Your task to perform on an android device: turn on airplane mode Image 0: 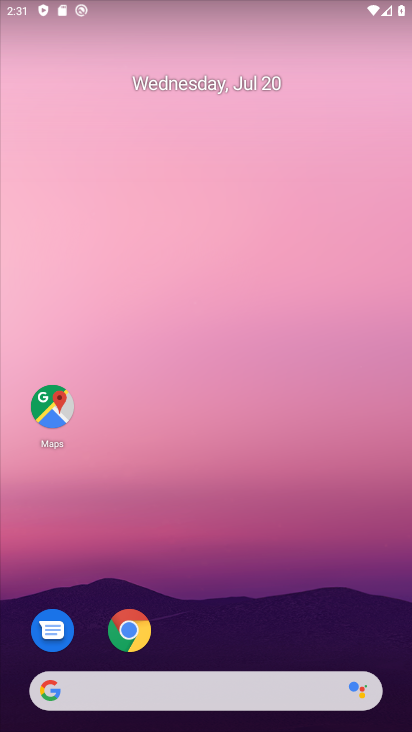
Step 0: drag from (293, 673) to (202, 239)
Your task to perform on an android device: turn on airplane mode Image 1: 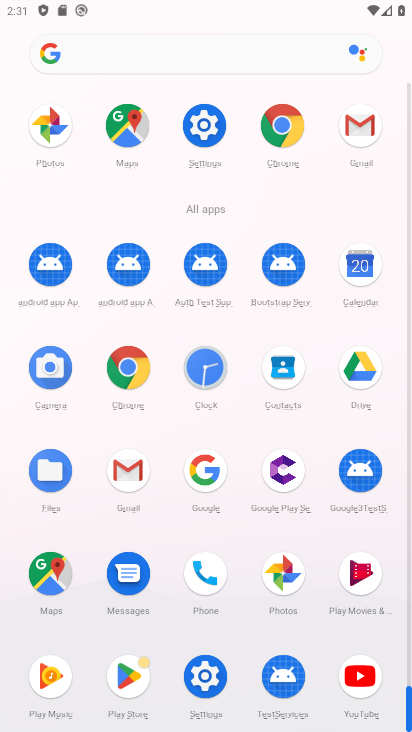
Step 1: click (211, 126)
Your task to perform on an android device: turn on airplane mode Image 2: 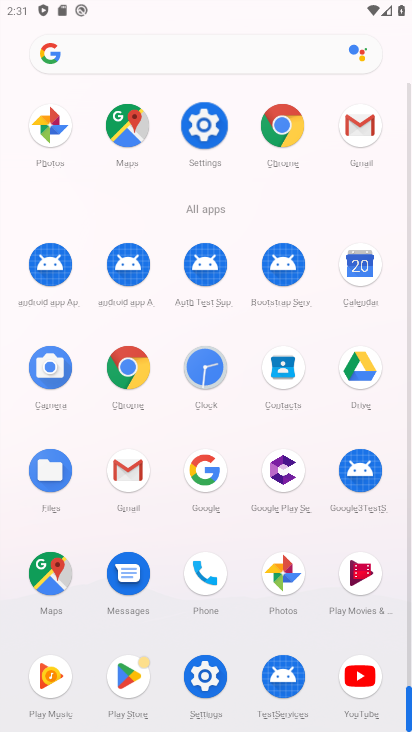
Step 2: click (211, 126)
Your task to perform on an android device: turn on airplane mode Image 3: 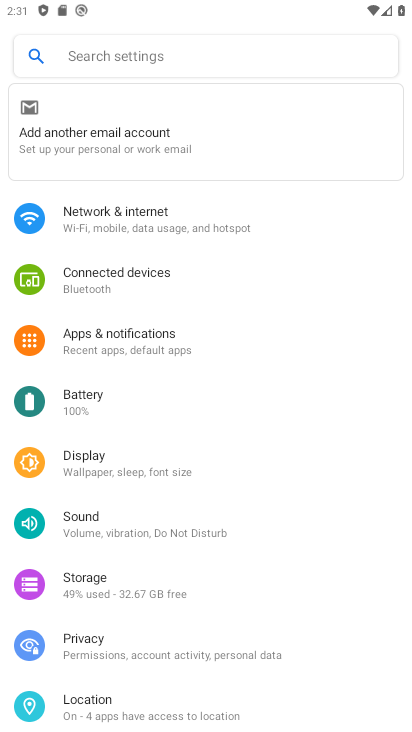
Step 3: click (147, 233)
Your task to perform on an android device: turn on airplane mode Image 4: 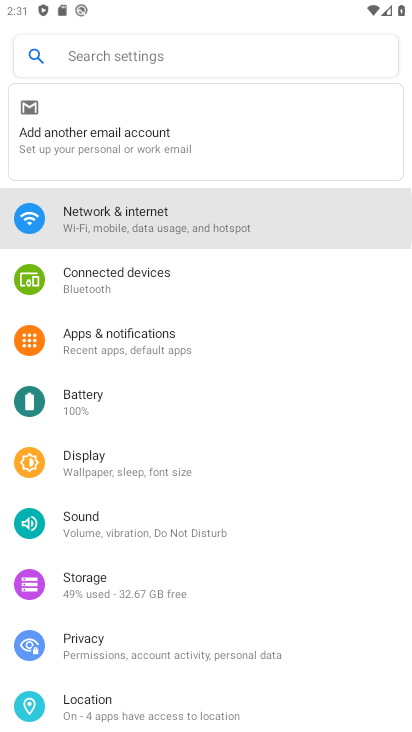
Step 4: click (159, 216)
Your task to perform on an android device: turn on airplane mode Image 5: 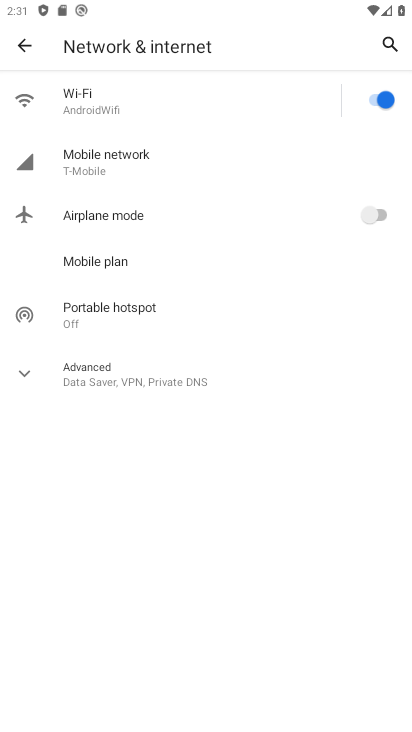
Step 5: click (372, 216)
Your task to perform on an android device: turn on airplane mode Image 6: 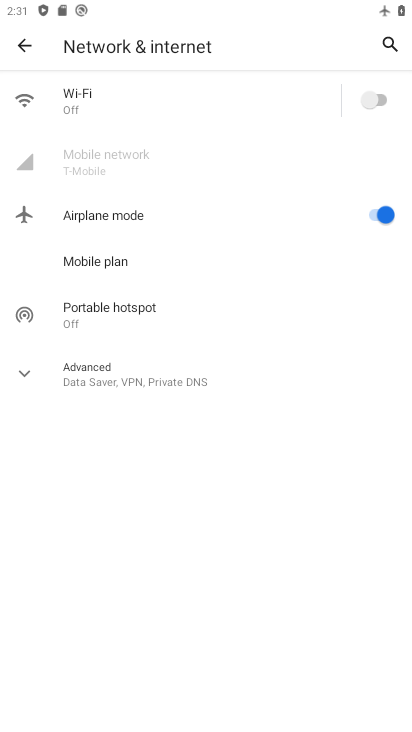
Step 6: task complete